Your task to perform on an android device: Open Google Image 0: 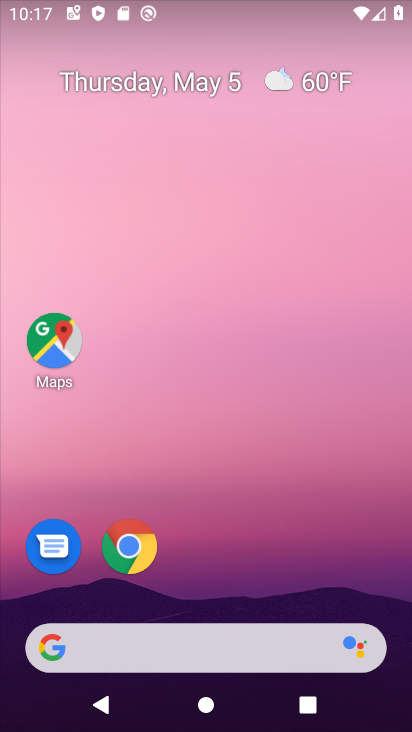
Step 0: drag from (192, 589) to (177, 97)
Your task to perform on an android device: Open Google Image 1: 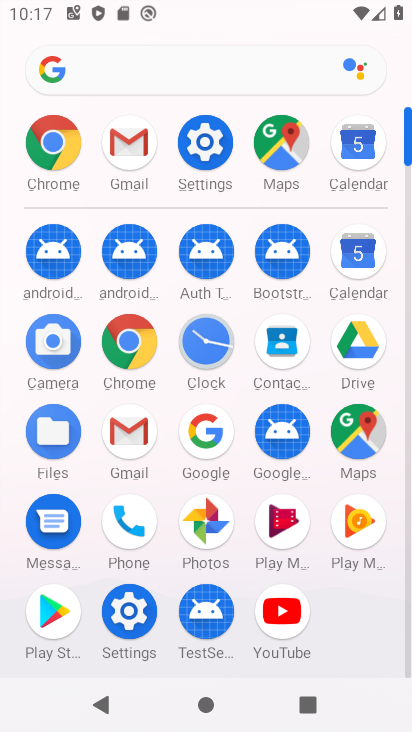
Step 1: click (135, 69)
Your task to perform on an android device: Open Google Image 2: 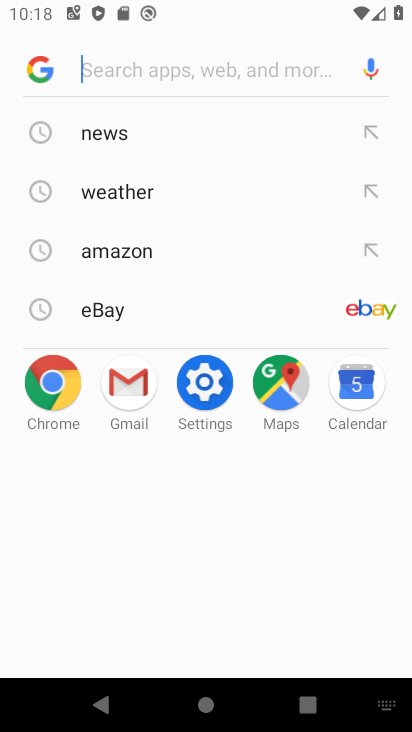
Step 2: click (46, 76)
Your task to perform on an android device: Open Google Image 3: 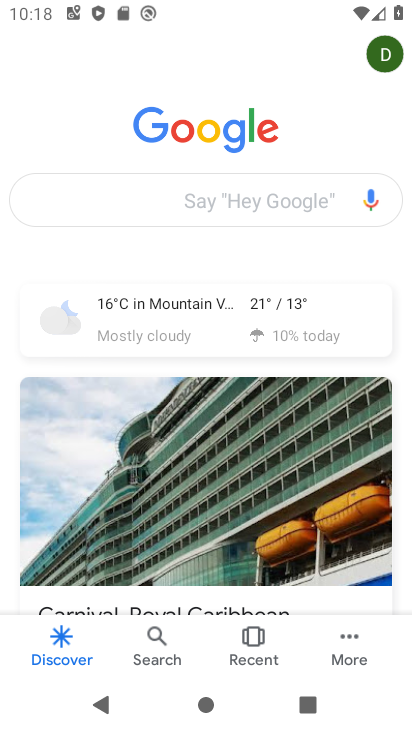
Step 3: task complete